Your task to perform on an android device: Go to Reddit.com Image 0: 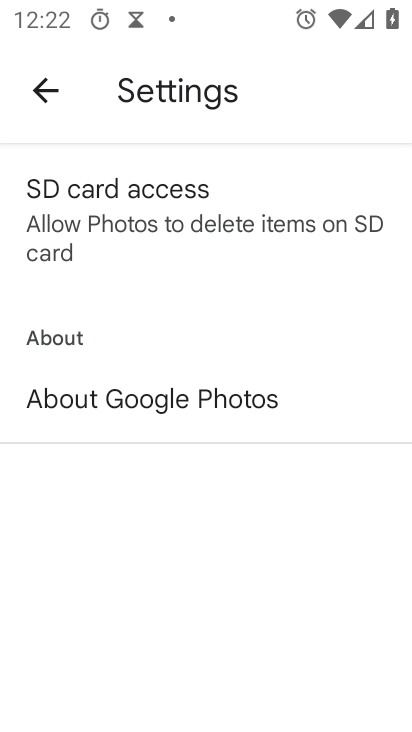
Step 0: press home button
Your task to perform on an android device: Go to Reddit.com Image 1: 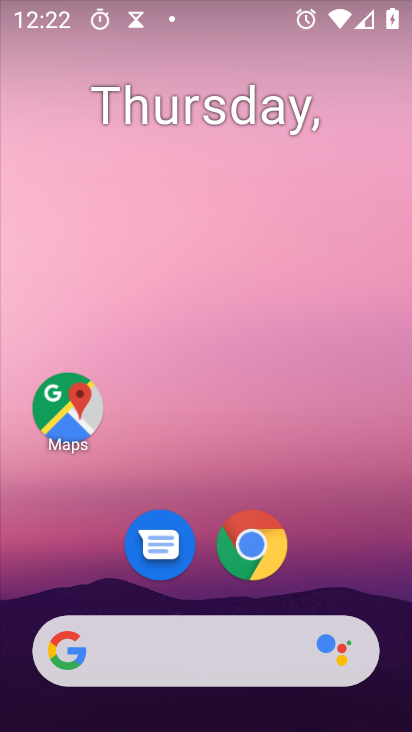
Step 1: click (253, 543)
Your task to perform on an android device: Go to Reddit.com Image 2: 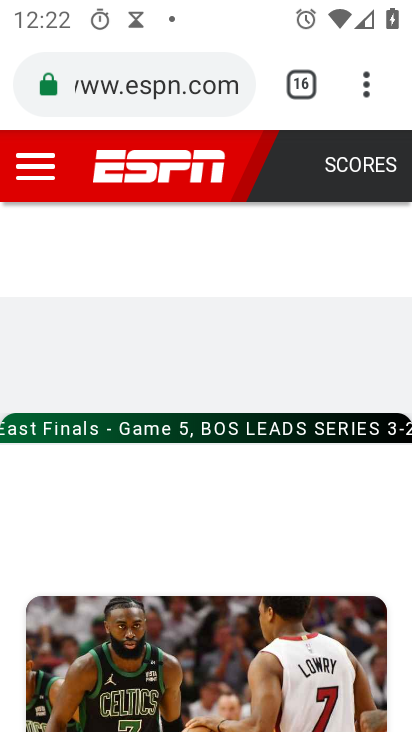
Step 2: drag from (361, 94) to (199, 166)
Your task to perform on an android device: Go to Reddit.com Image 3: 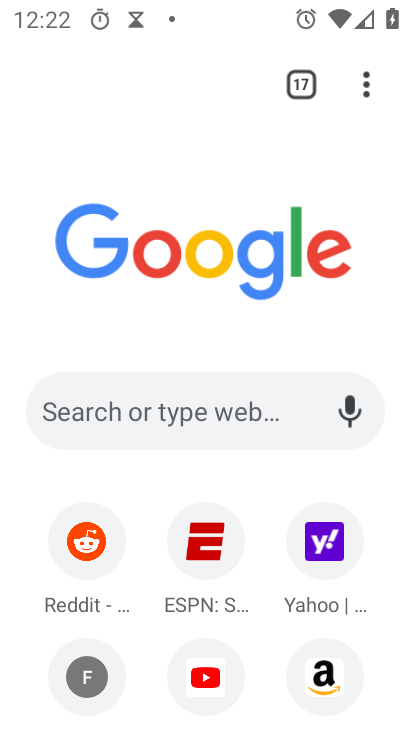
Step 3: click (86, 556)
Your task to perform on an android device: Go to Reddit.com Image 4: 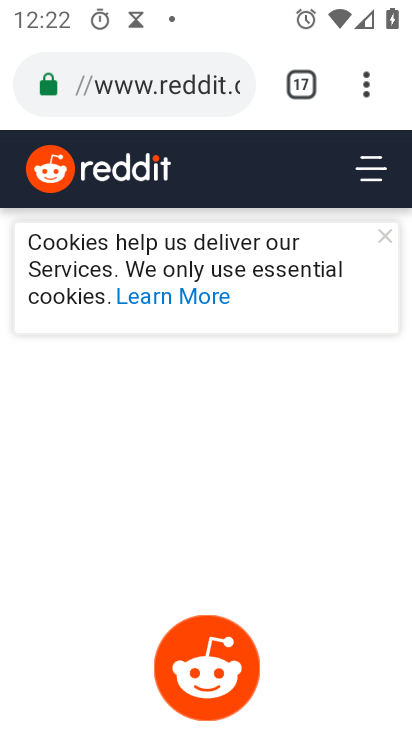
Step 4: task complete